Your task to perform on an android device: open app "Google Duo" (install if not already installed) Image 0: 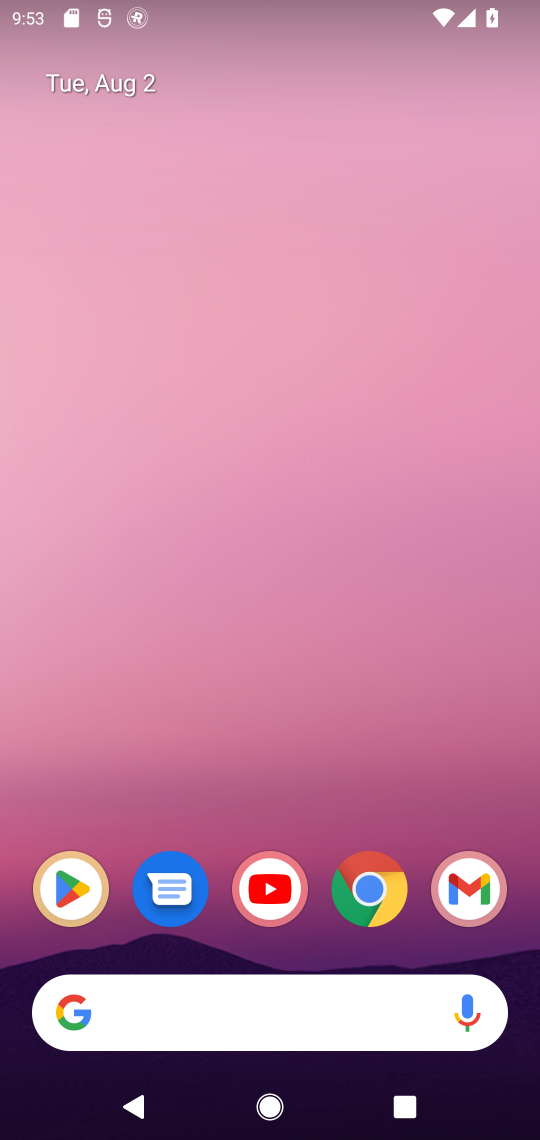
Step 0: click (76, 899)
Your task to perform on an android device: open app "Google Duo" (install if not already installed) Image 1: 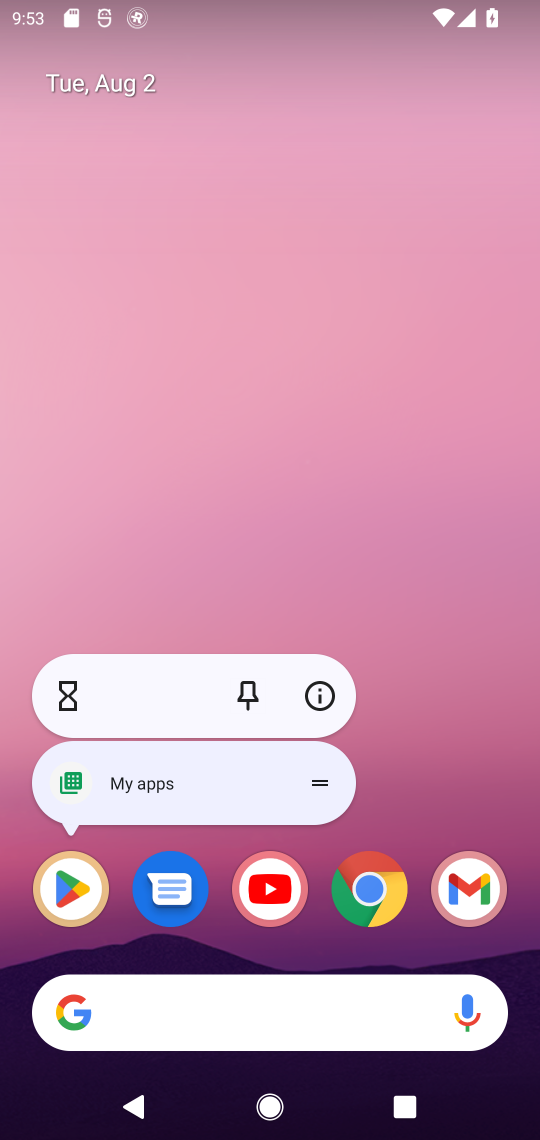
Step 1: click (68, 887)
Your task to perform on an android device: open app "Google Duo" (install if not already installed) Image 2: 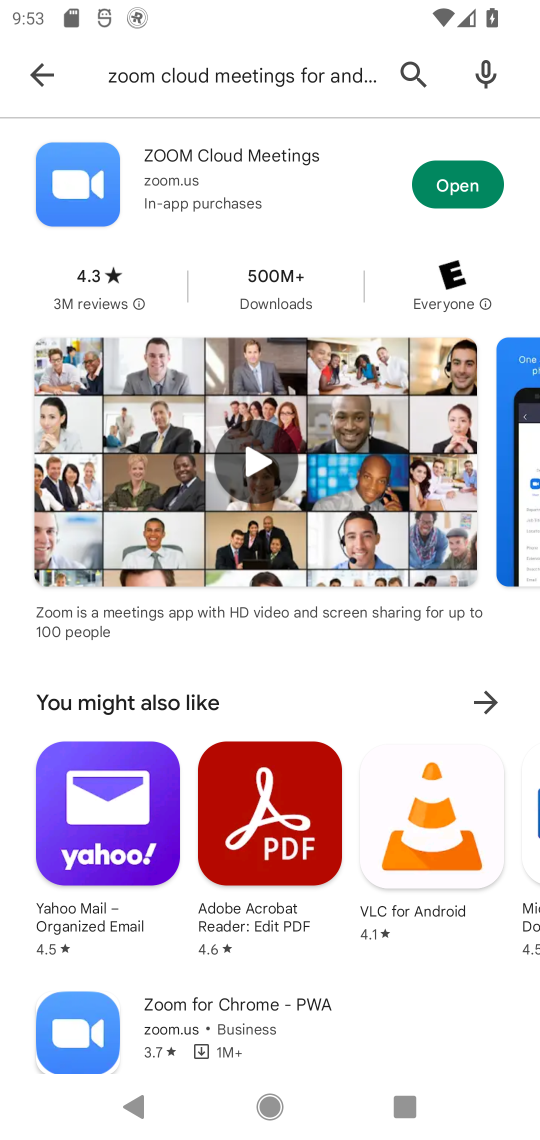
Step 2: click (411, 74)
Your task to perform on an android device: open app "Google Duo" (install if not already installed) Image 3: 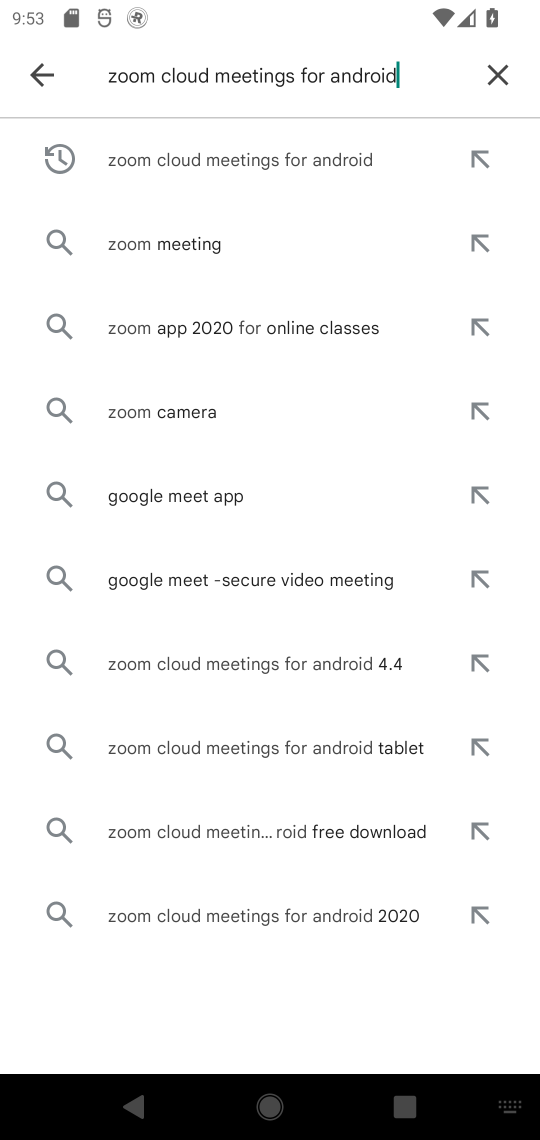
Step 3: click (493, 78)
Your task to perform on an android device: open app "Google Duo" (install if not already installed) Image 4: 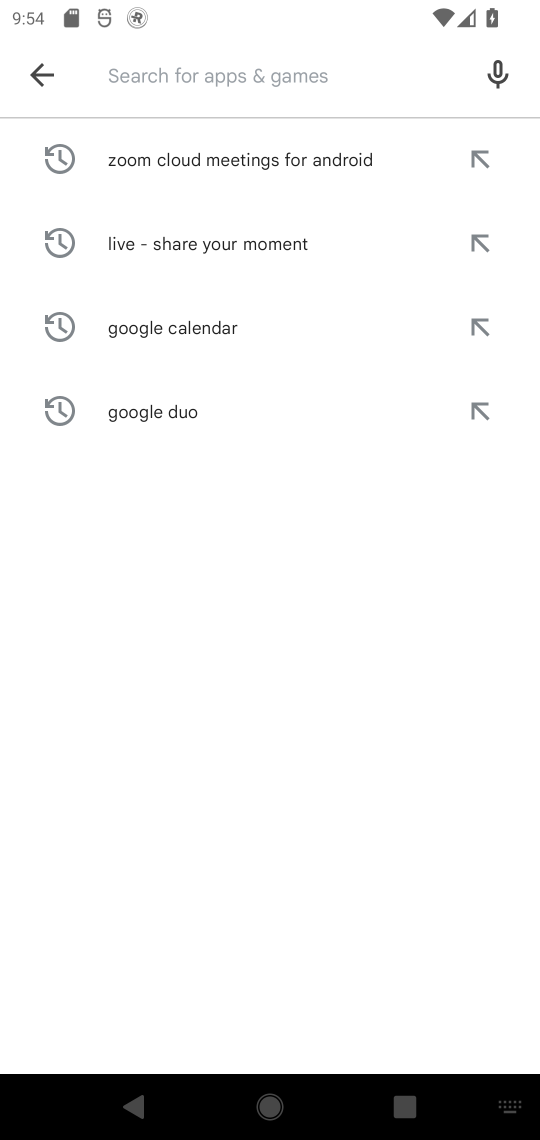
Step 4: type "Google Duo"
Your task to perform on an android device: open app "Google Duo" (install if not already installed) Image 5: 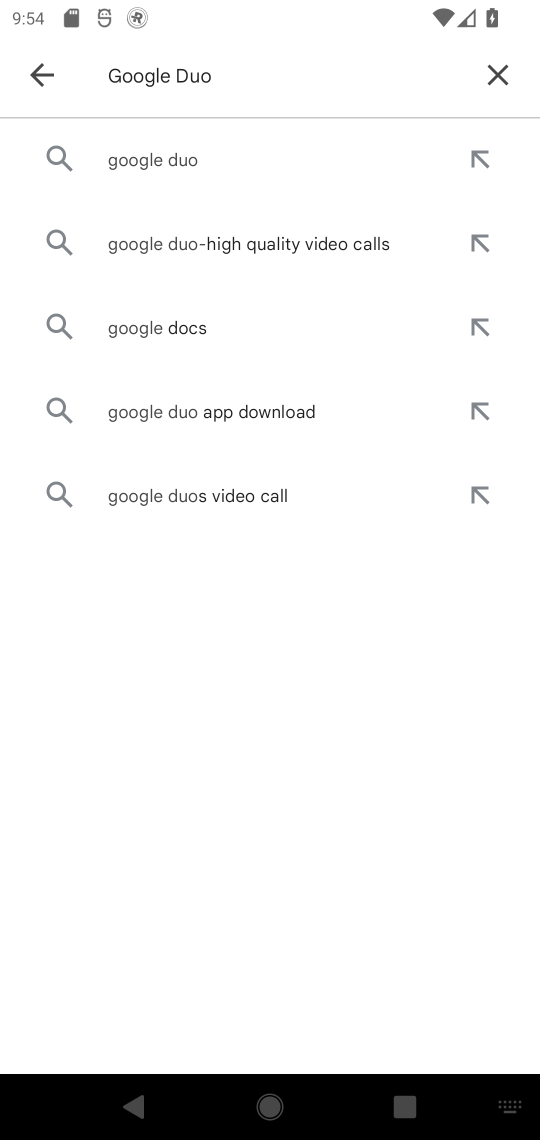
Step 5: click (186, 159)
Your task to perform on an android device: open app "Google Duo" (install if not already installed) Image 6: 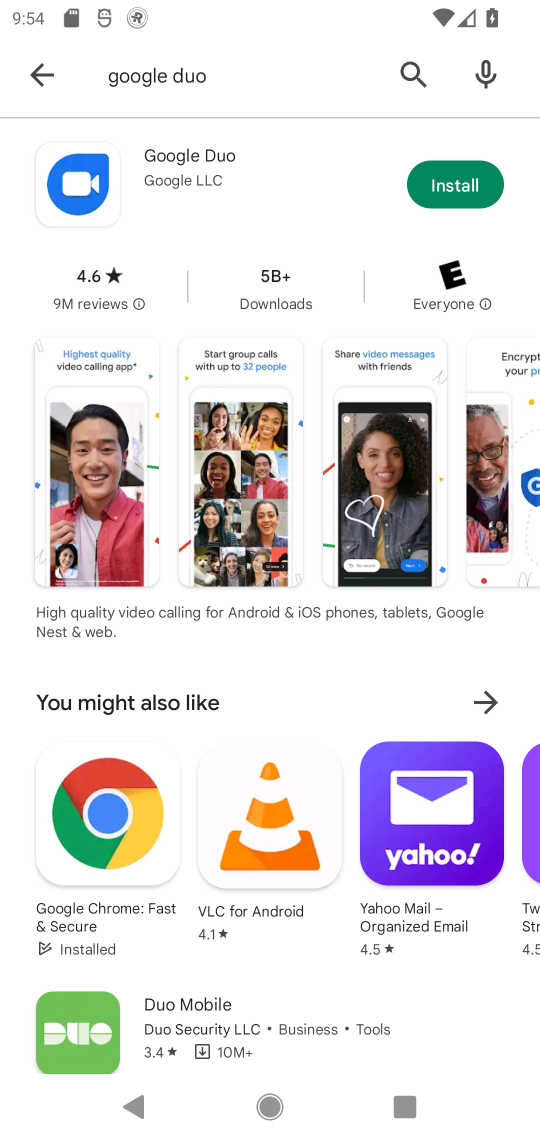
Step 6: click (451, 187)
Your task to perform on an android device: open app "Google Duo" (install if not already installed) Image 7: 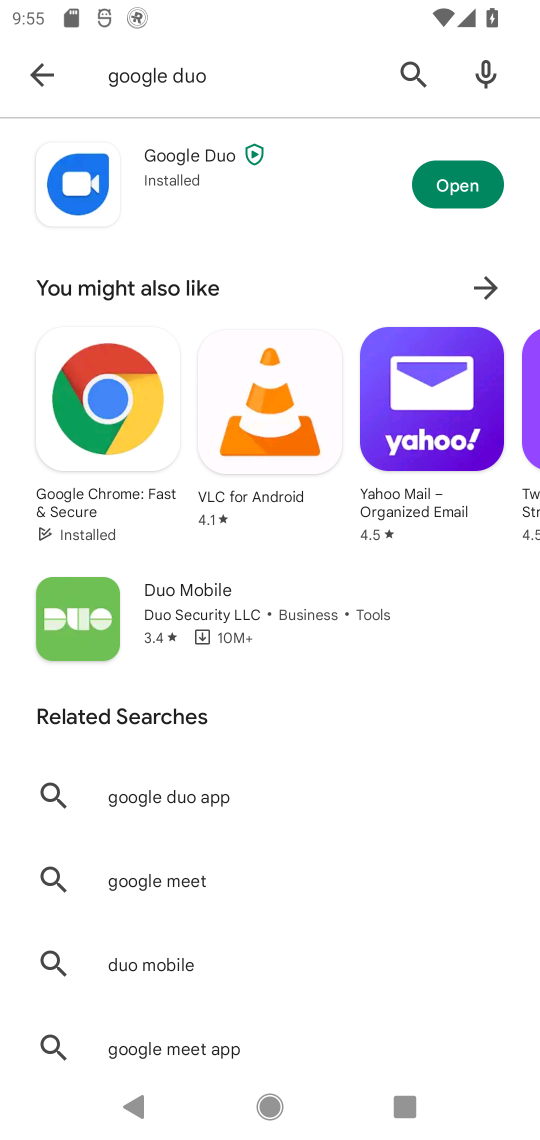
Step 7: click (455, 174)
Your task to perform on an android device: open app "Google Duo" (install if not already installed) Image 8: 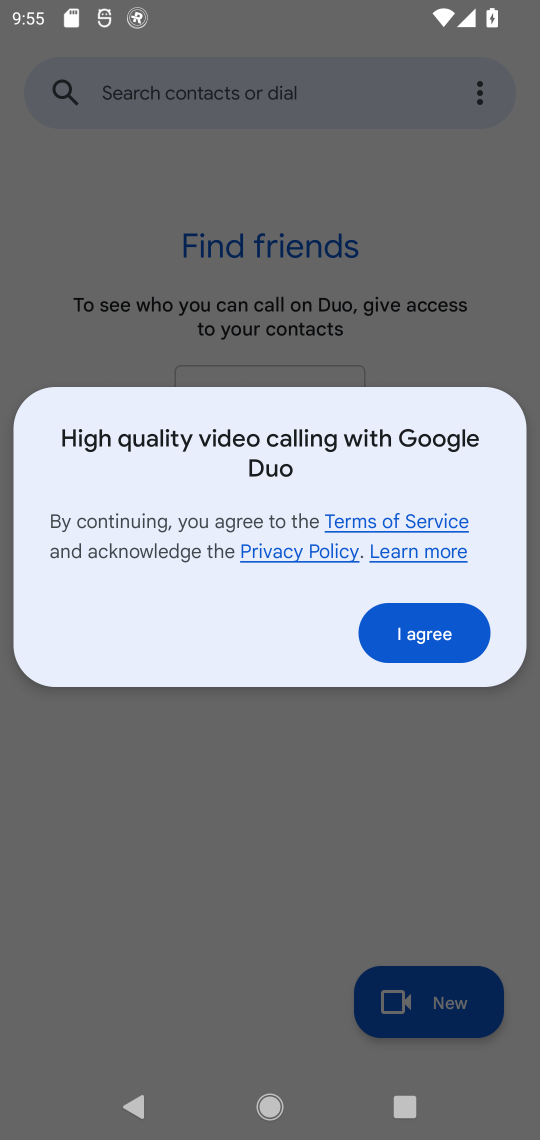
Step 8: task complete